Your task to perform on an android device: change notifications settings Image 0: 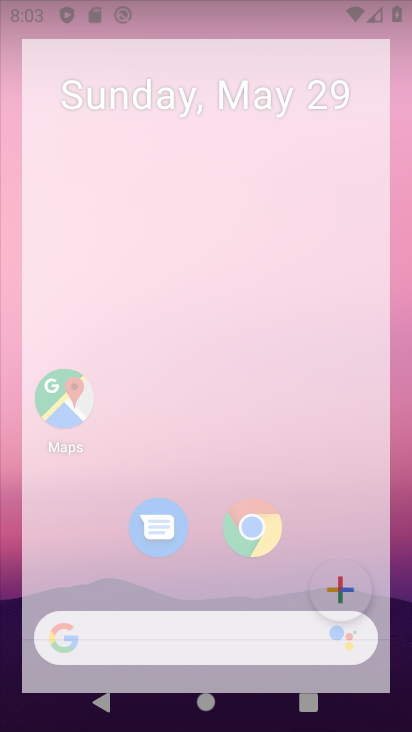
Step 0: press home button
Your task to perform on an android device: change notifications settings Image 1: 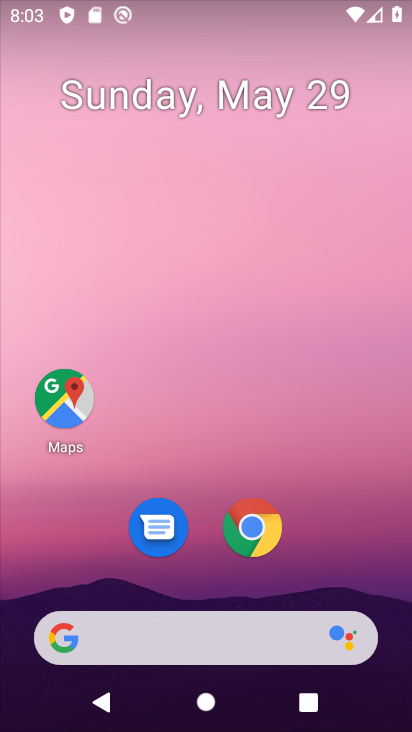
Step 1: drag from (213, 590) to (218, 72)
Your task to perform on an android device: change notifications settings Image 2: 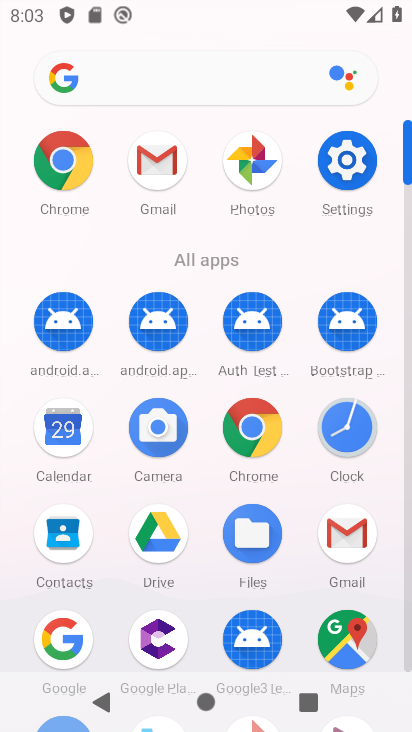
Step 2: click (343, 156)
Your task to perform on an android device: change notifications settings Image 3: 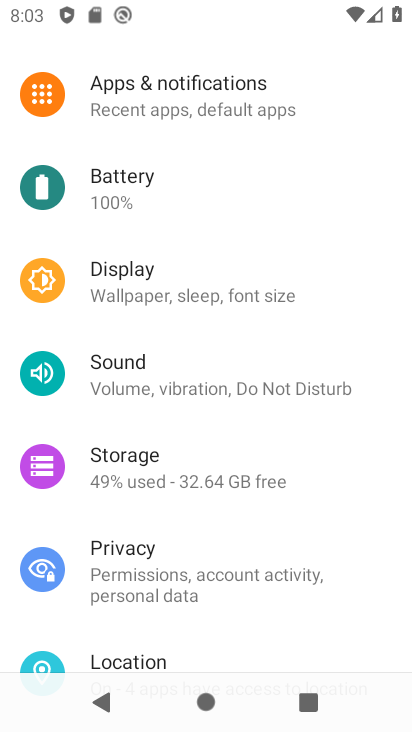
Step 3: click (156, 106)
Your task to perform on an android device: change notifications settings Image 4: 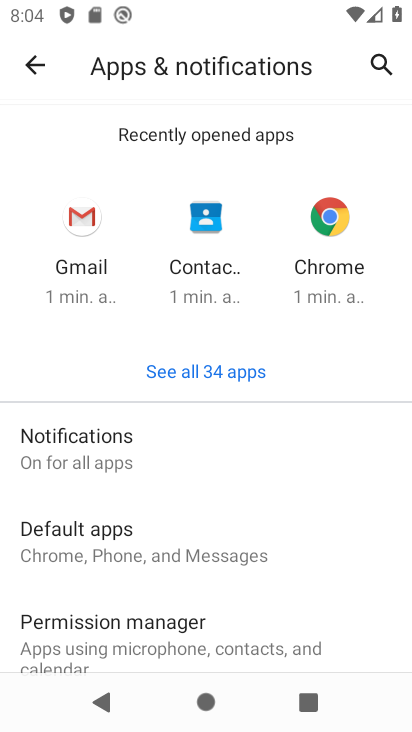
Step 4: click (151, 443)
Your task to perform on an android device: change notifications settings Image 5: 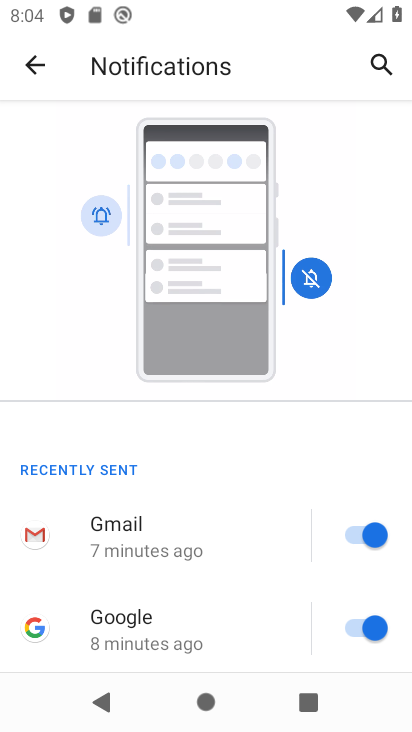
Step 5: drag from (237, 645) to (229, 130)
Your task to perform on an android device: change notifications settings Image 6: 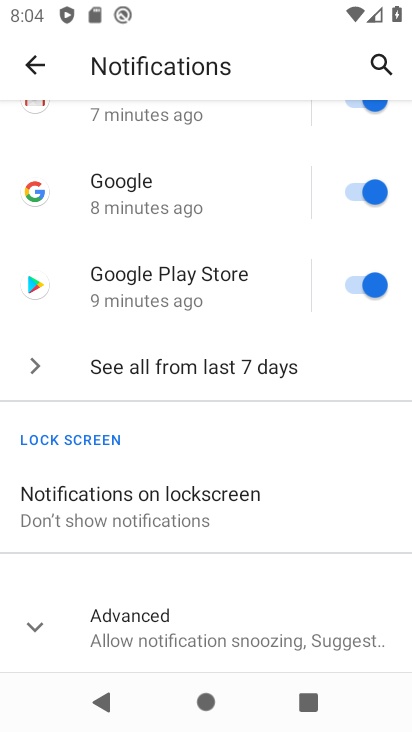
Step 6: click (357, 107)
Your task to perform on an android device: change notifications settings Image 7: 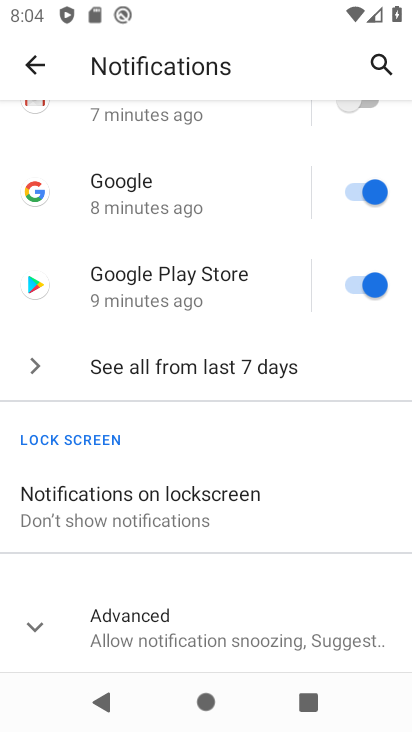
Step 7: click (354, 200)
Your task to perform on an android device: change notifications settings Image 8: 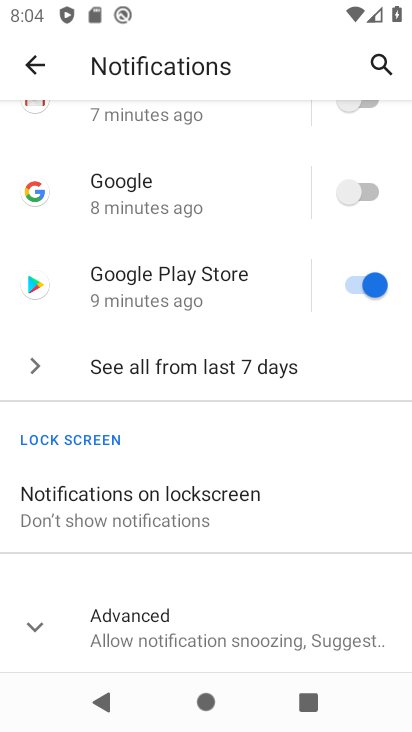
Step 8: click (353, 285)
Your task to perform on an android device: change notifications settings Image 9: 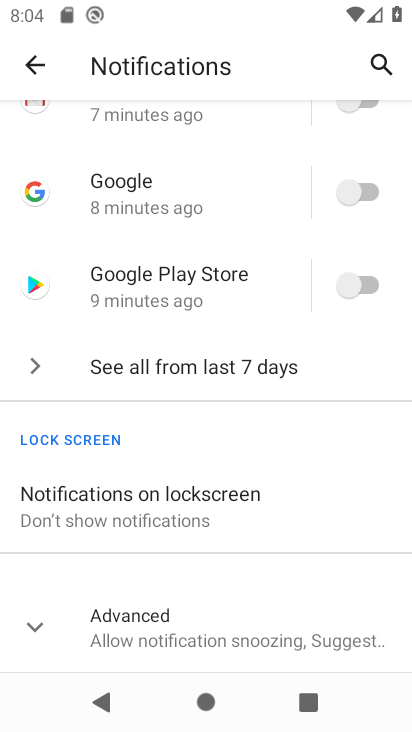
Step 9: click (227, 497)
Your task to perform on an android device: change notifications settings Image 10: 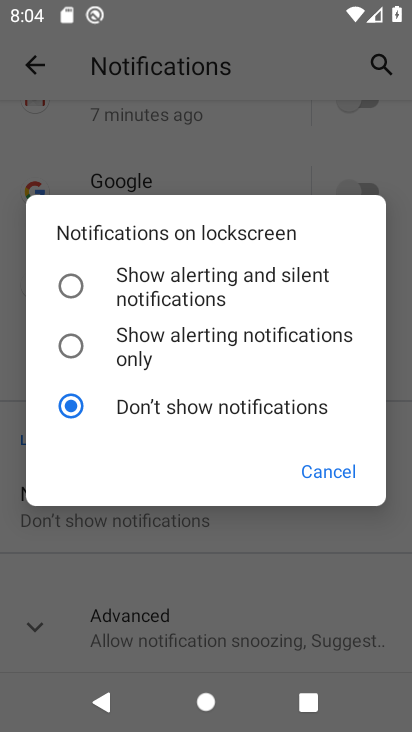
Step 10: click (66, 339)
Your task to perform on an android device: change notifications settings Image 11: 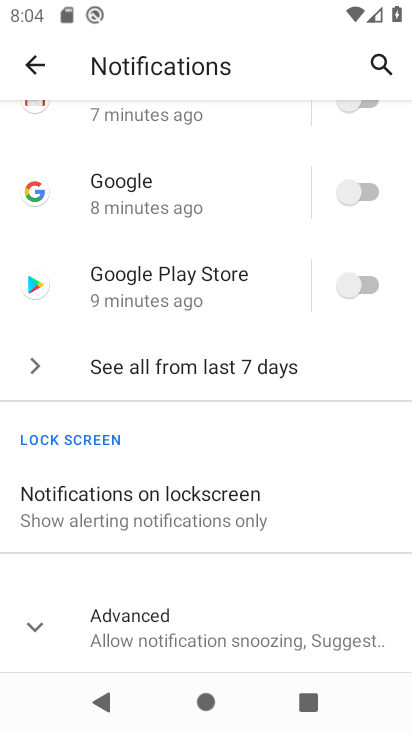
Step 11: click (30, 623)
Your task to perform on an android device: change notifications settings Image 12: 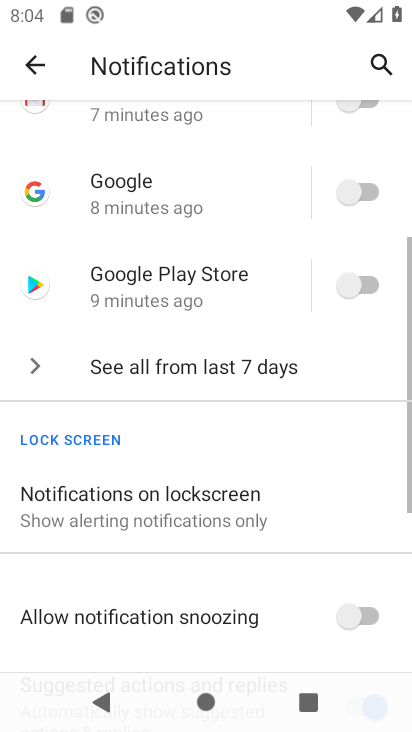
Step 12: drag from (245, 596) to (239, 289)
Your task to perform on an android device: change notifications settings Image 13: 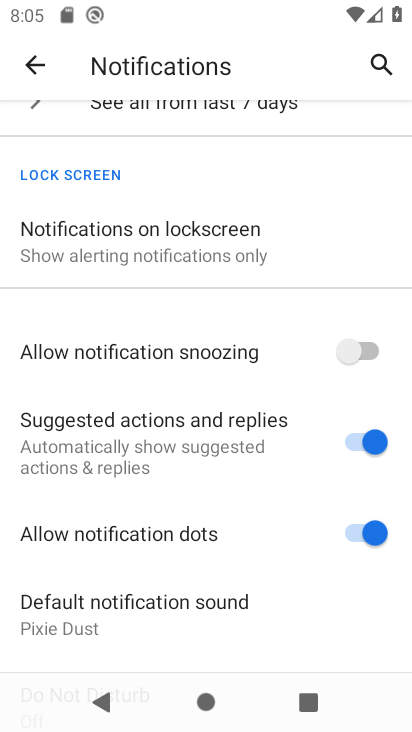
Step 13: click (358, 444)
Your task to perform on an android device: change notifications settings Image 14: 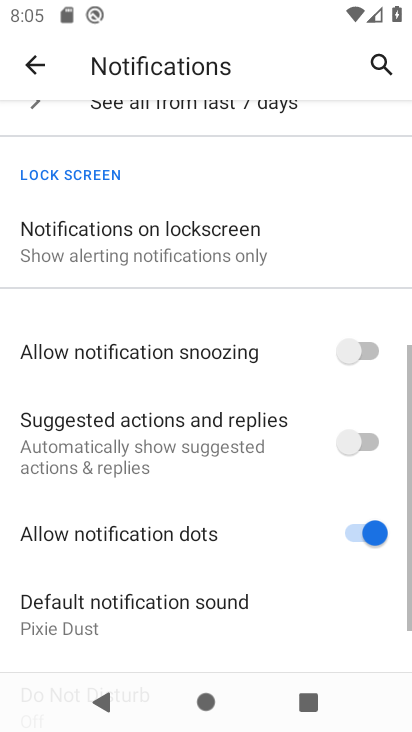
Step 14: click (366, 525)
Your task to perform on an android device: change notifications settings Image 15: 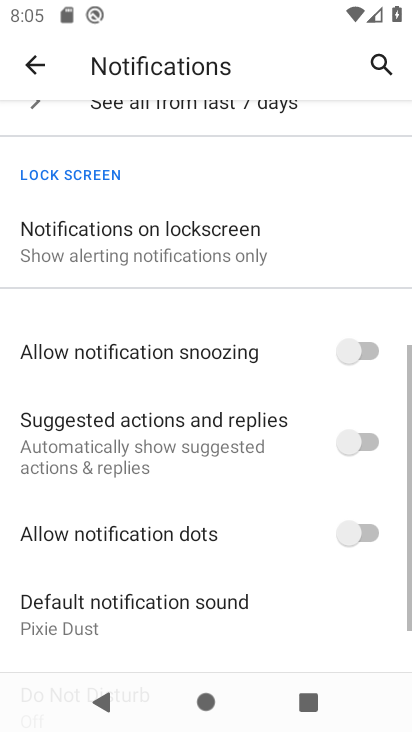
Step 15: task complete